Your task to perform on an android device: Search for Italian restaurants on Maps Image 0: 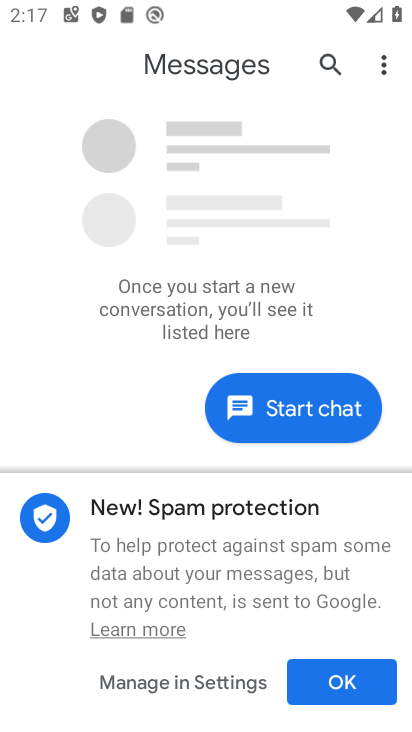
Step 0: press home button
Your task to perform on an android device: Search for Italian restaurants on Maps Image 1: 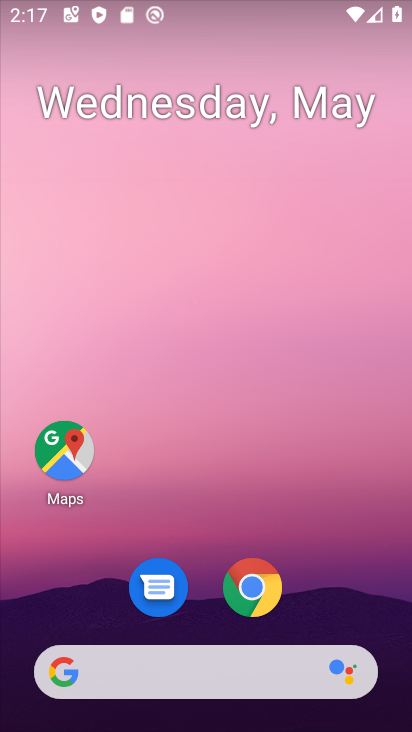
Step 1: drag from (357, 587) to (319, 3)
Your task to perform on an android device: Search for Italian restaurants on Maps Image 2: 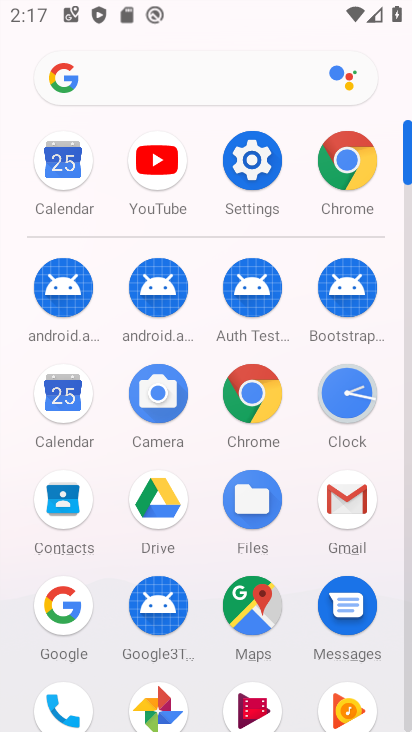
Step 2: click (265, 608)
Your task to perform on an android device: Search for Italian restaurants on Maps Image 3: 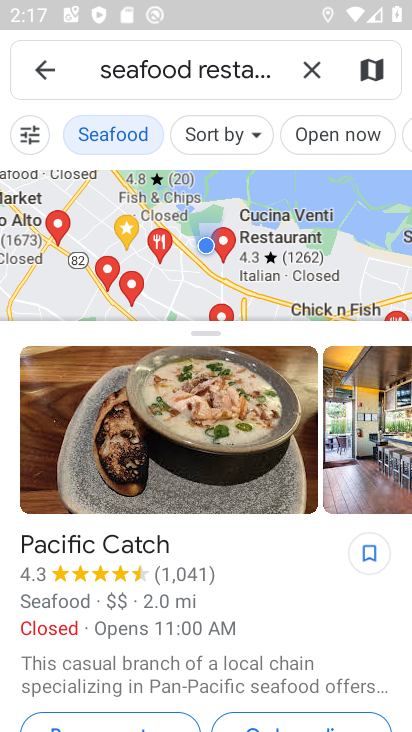
Step 3: click (306, 54)
Your task to perform on an android device: Search for Italian restaurants on Maps Image 4: 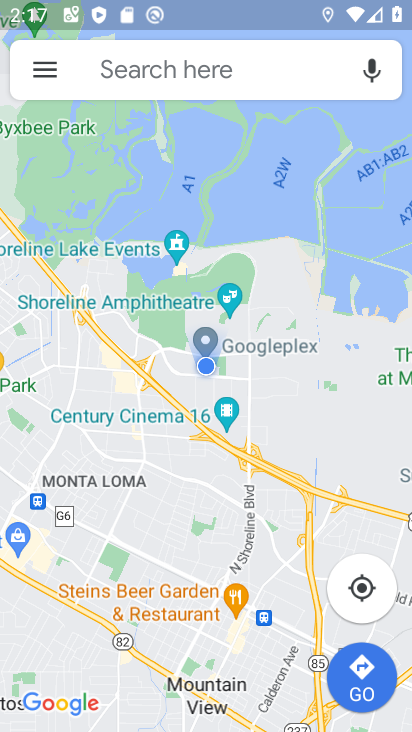
Step 4: type "italian restaurant"
Your task to perform on an android device: Search for Italian restaurants on Maps Image 5: 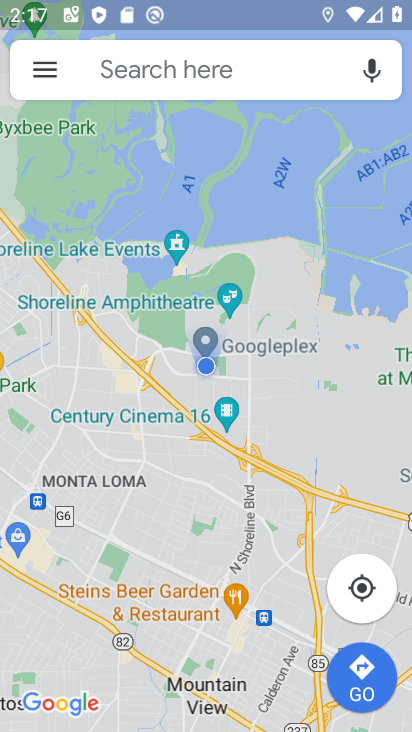
Step 5: click (176, 51)
Your task to perform on an android device: Search for Italian restaurants on Maps Image 6: 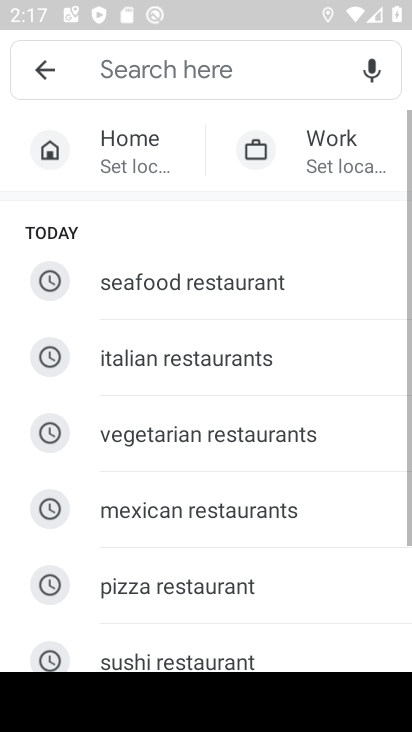
Step 6: click (218, 374)
Your task to perform on an android device: Search for Italian restaurants on Maps Image 7: 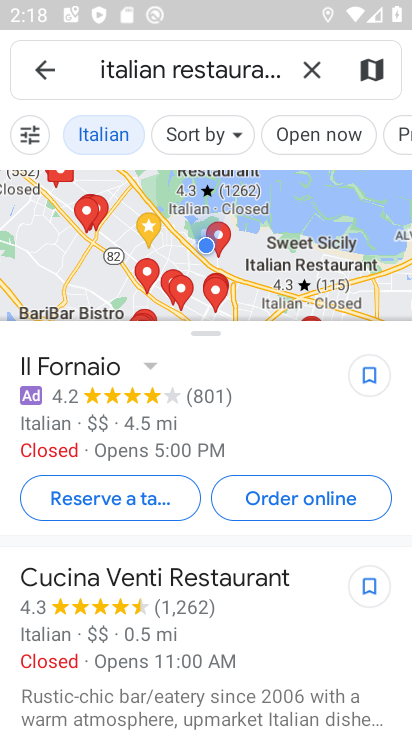
Step 7: task complete